Your task to perform on an android device: remove spam from my inbox in the gmail app Image 0: 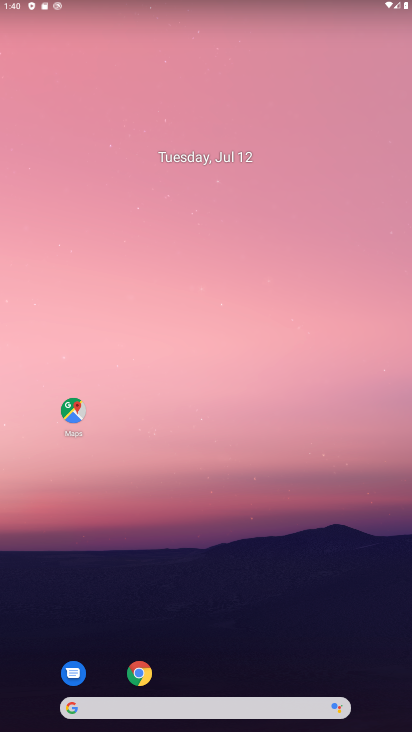
Step 0: click (174, 292)
Your task to perform on an android device: remove spam from my inbox in the gmail app Image 1: 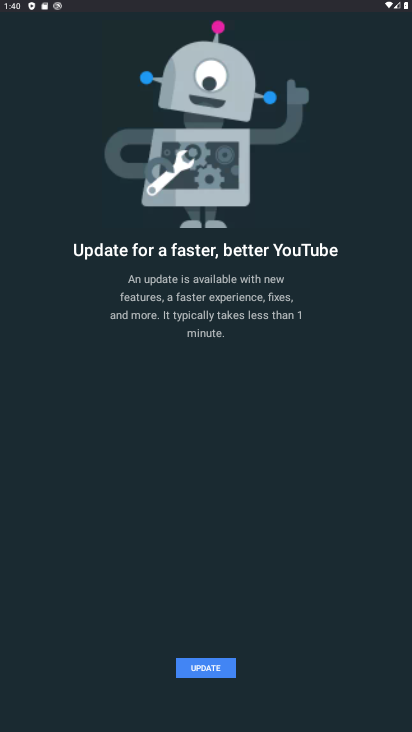
Step 1: press home button
Your task to perform on an android device: remove spam from my inbox in the gmail app Image 2: 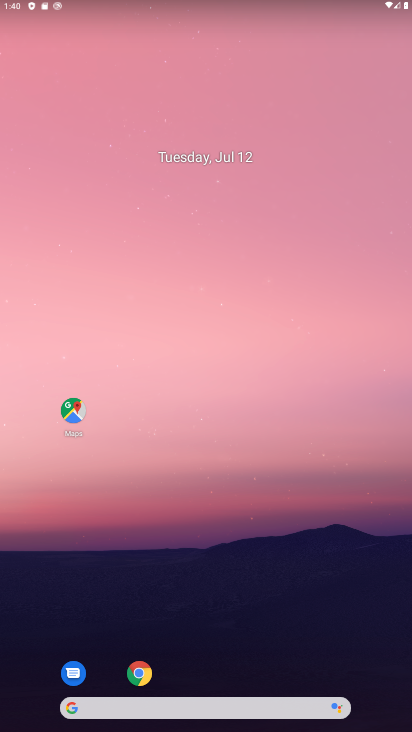
Step 2: drag from (192, 690) to (143, 300)
Your task to perform on an android device: remove spam from my inbox in the gmail app Image 3: 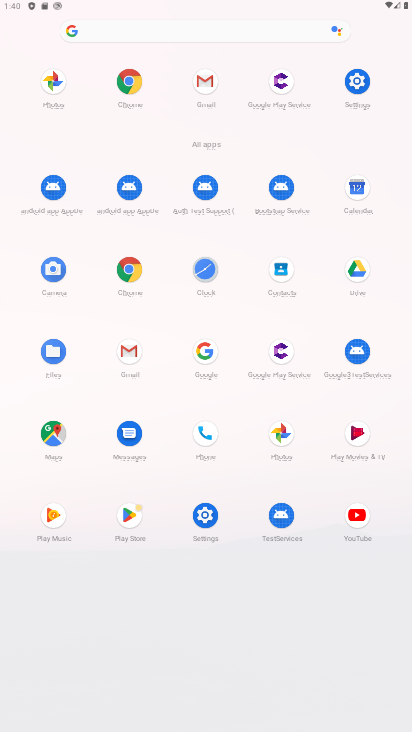
Step 3: click (127, 358)
Your task to perform on an android device: remove spam from my inbox in the gmail app Image 4: 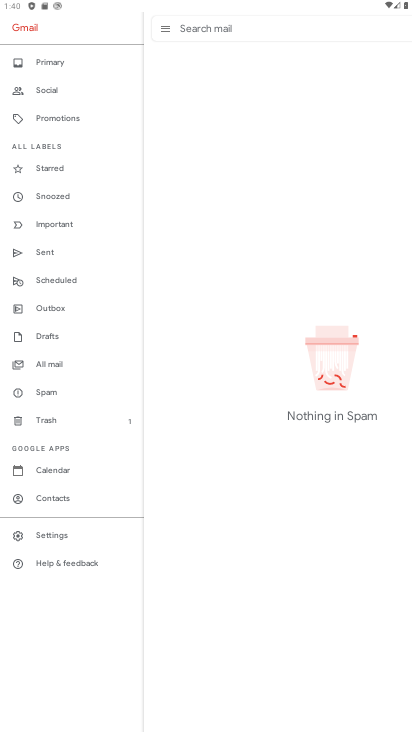
Step 4: click (50, 395)
Your task to perform on an android device: remove spam from my inbox in the gmail app Image 5: 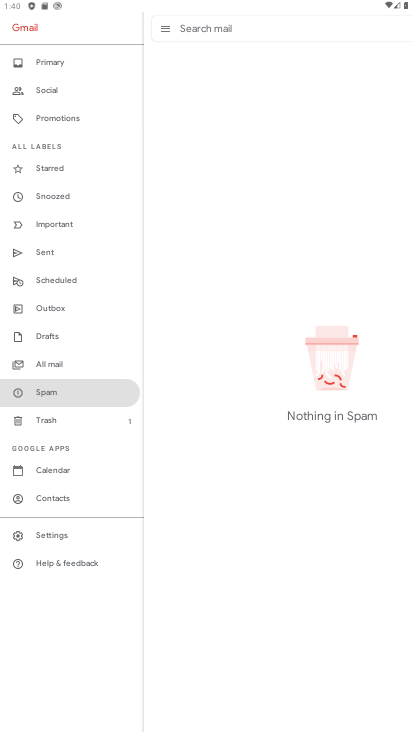
Step 5: task complete